Your task to perform on an android device: Open the web browser Image 0: 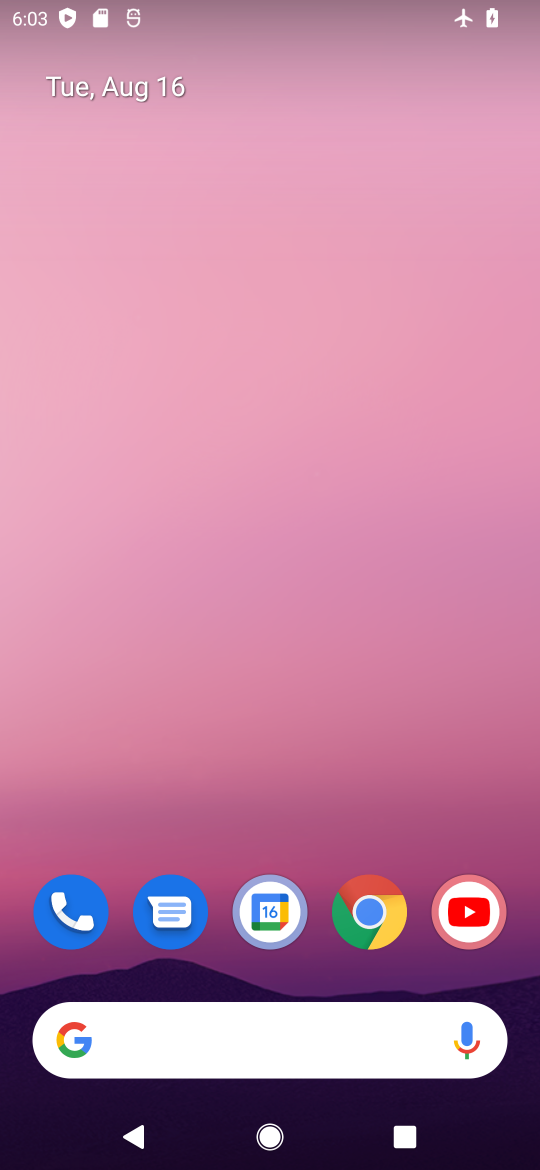
Step 0: click (373, 917)
Your task to perform on an android device: Open the web browser Image 1: 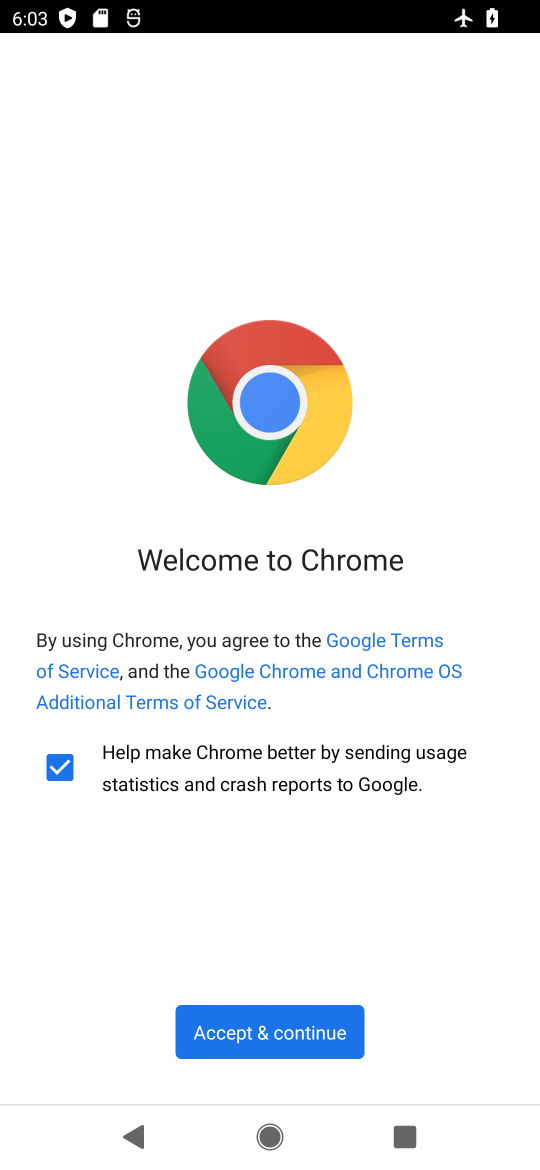
Step 1: click (261, 1030)
Your task to perform on an android device: Open the web browser Image 2: 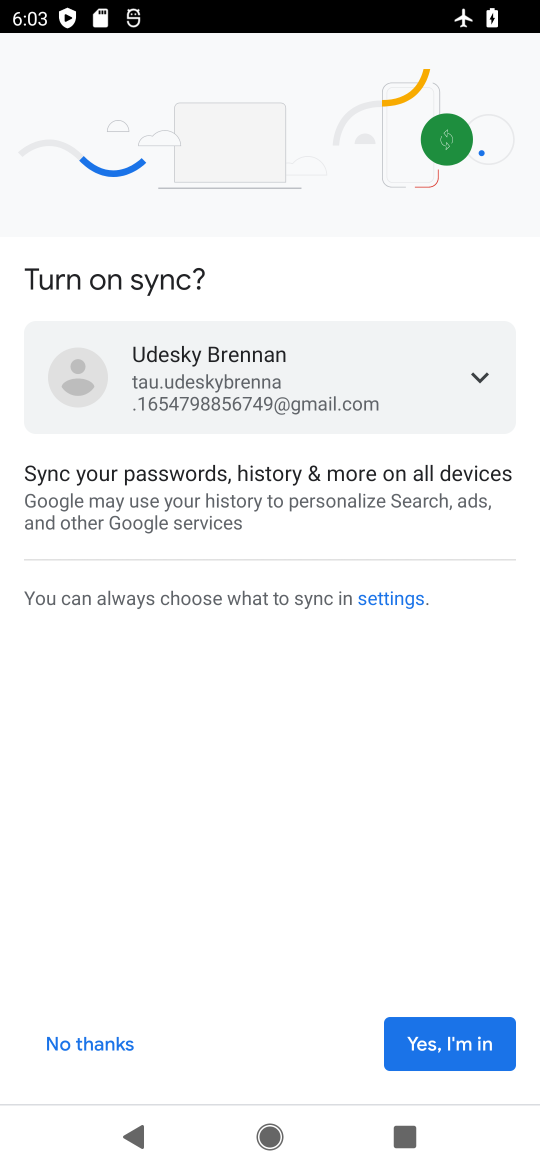
Step 2: click (457, 1043)
Your task to perform on an android device: Open the web browser Image 3: 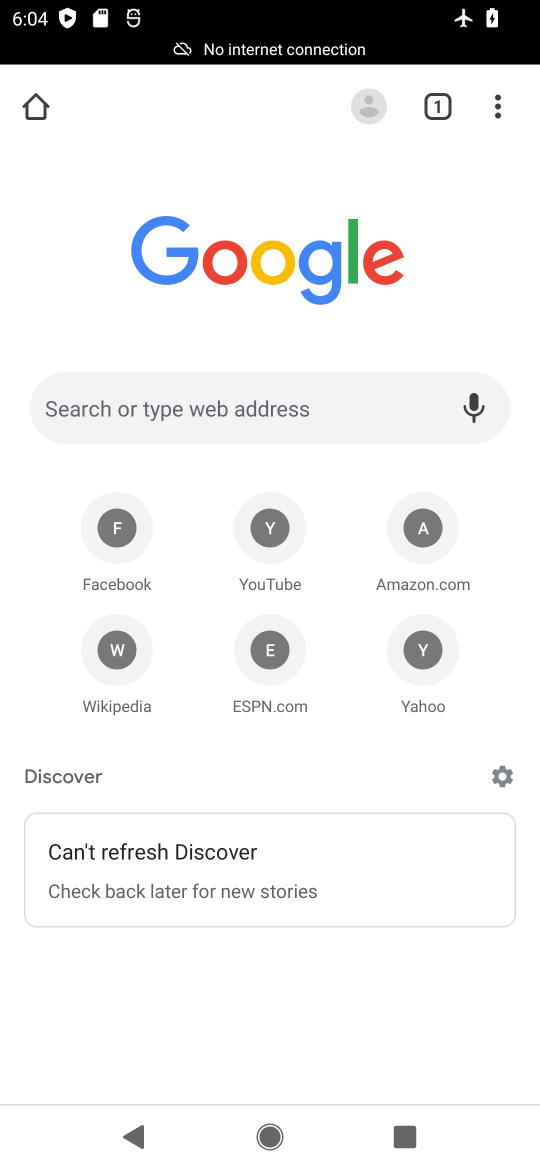
Step 3: task complete